Your task to perform on an android device: open device folders in google photos Image 0: 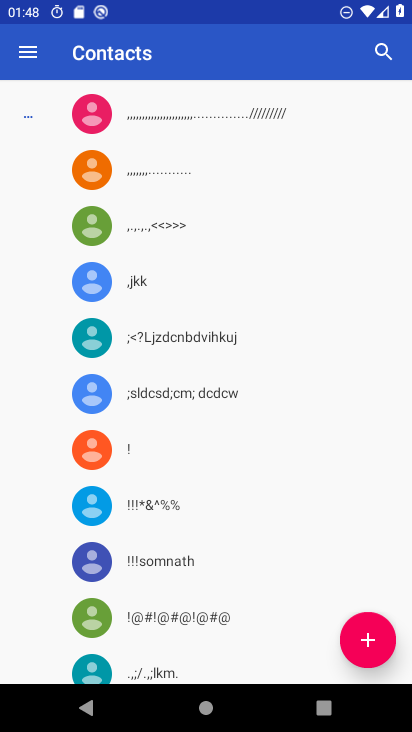
Step 0: press home button
Your task to perform on an android device: open device folders in google photos Image 1: 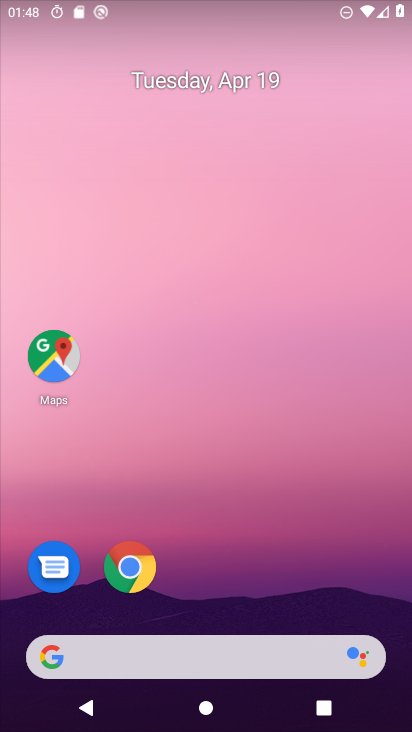
Step 1: drag from (249, 557) to (274, 158)
Your task to perform on an android device: open device folders in google photos Image 2: 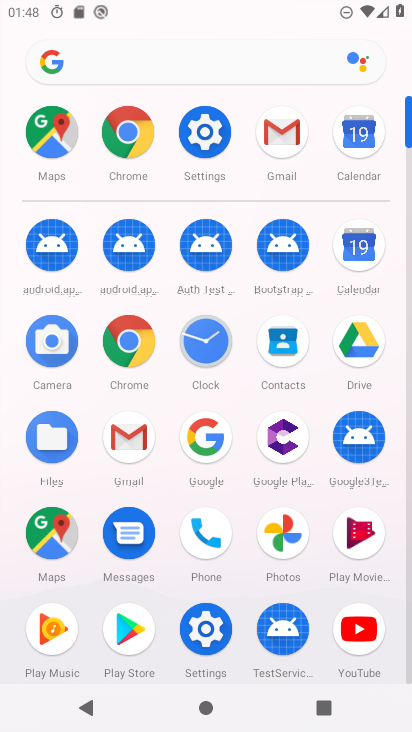
Step 2: click (289, 532)
Your task to perform on an android device: open device folders in google photos Image 3: 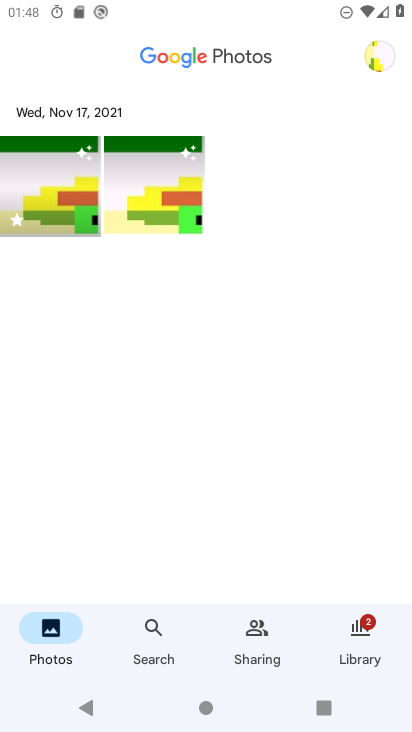
Step 3: click (376, 55)
Your task to perform on an android device: open device folders in google photos Image 4: 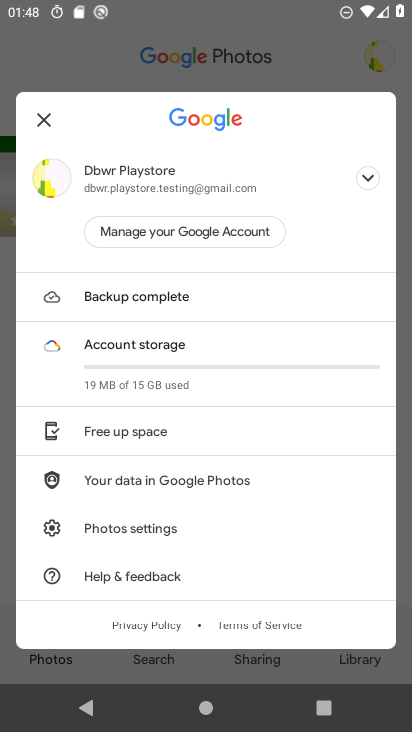
Step 4: drag from (225, 528) to (296, 237)
Your task to perform on an android device: open device folders in google photos Image 5: 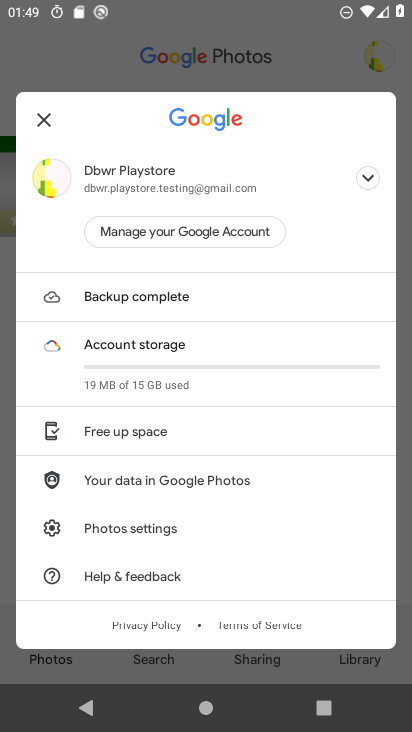
Step 5: click (138, 524)
Your task to perform on an android device: open device folders in google photos Image 6: 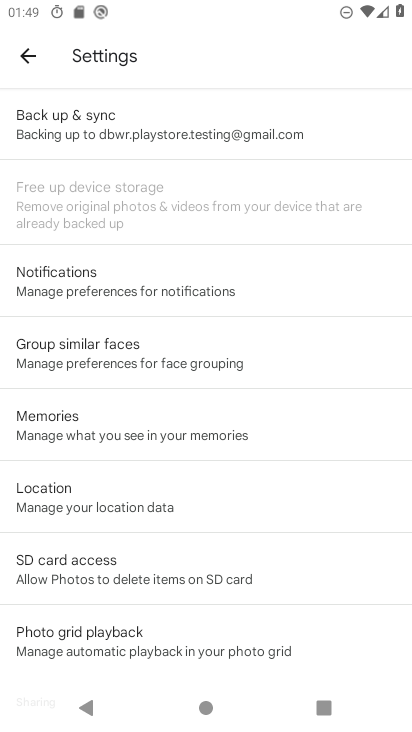
Step 6: click (23, 60)
Your task to perform on an android device: open device folders in google photos Image 7: 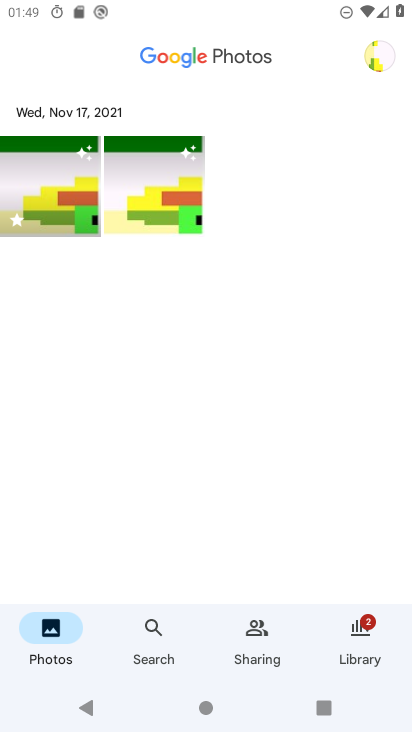
Step 7: click (353, 632)
Your task to perform on an android device: open device folders in google photos Image 8: 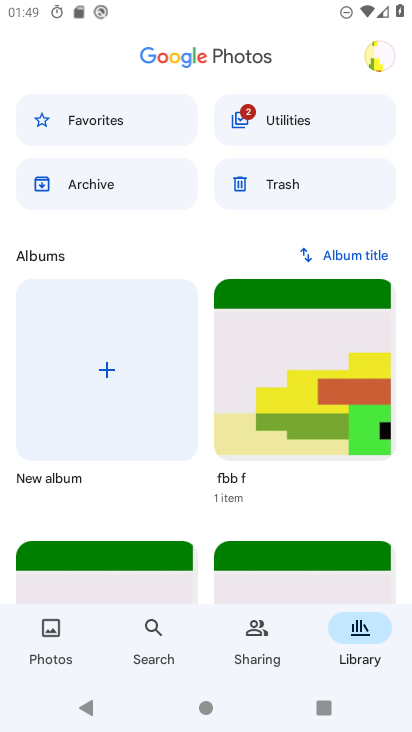
Step 8: drag from (203, 513) to (244, 612)
Your task to perform on an android device: open device folders in google photos Image 9: 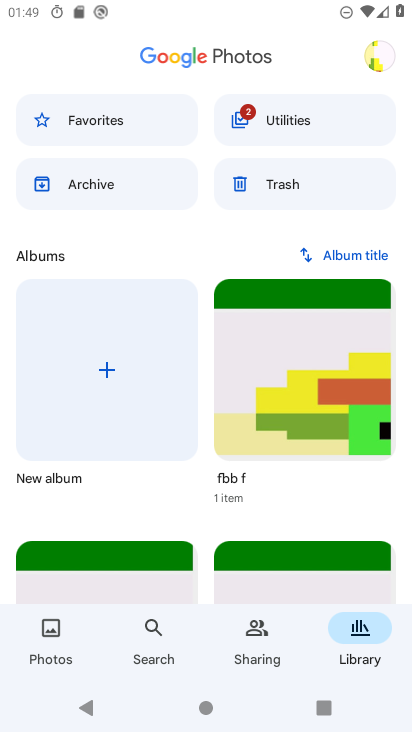
Step 9: click (388, 51)
Your task to perform on an android device: open device folders in google photos Image 10: 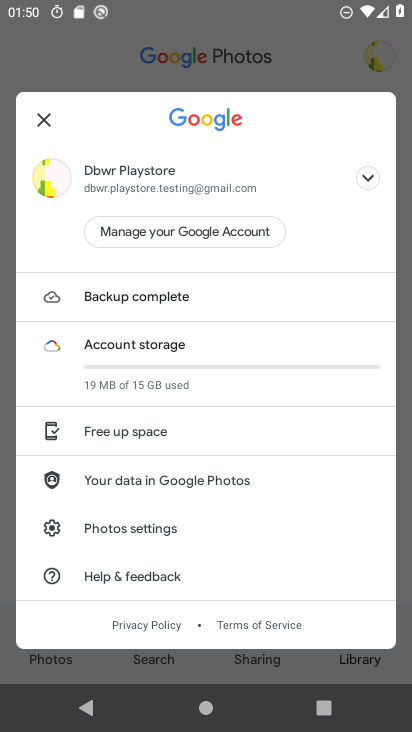
Step 10: task complete